Your task to perform on an android device: toggle improve location accuracy Image 0: 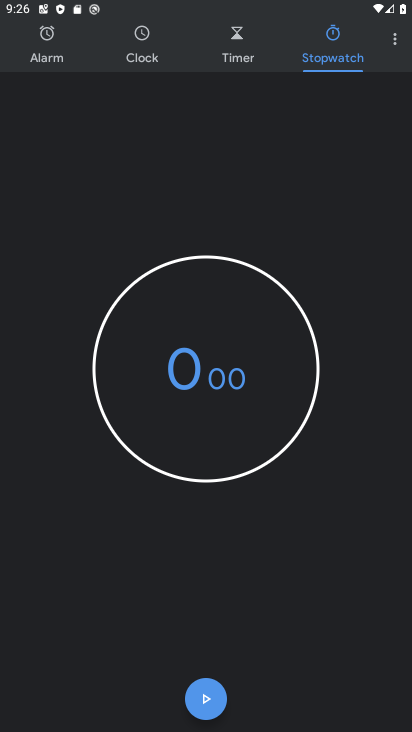
Step 0: press back button
Your task to perform on an android device: toggle improve location accuracy Image 1: 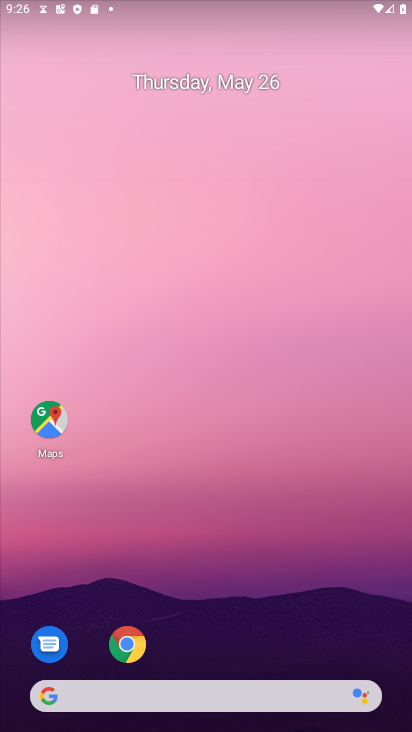
Step 1: drag from (161, 631) to (183, 197)
Your task to perform on an android device: toggle improve location accuracy Image 2: 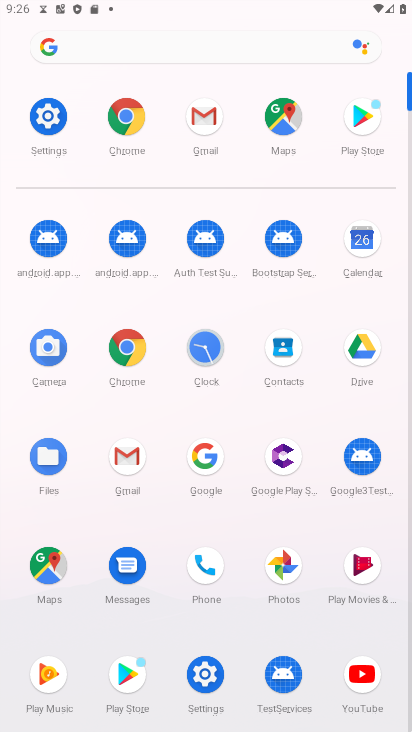
Step 2: click (44, 110)
Your task to perform on an android device: toggle improve location accuracy Image 3: 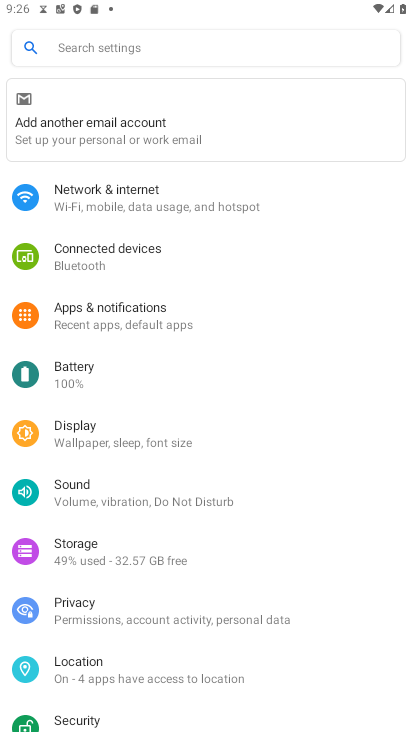
Step 3: click (128, 674)
Your task to perform on an android device: toggle improve location accuracy Image 4: 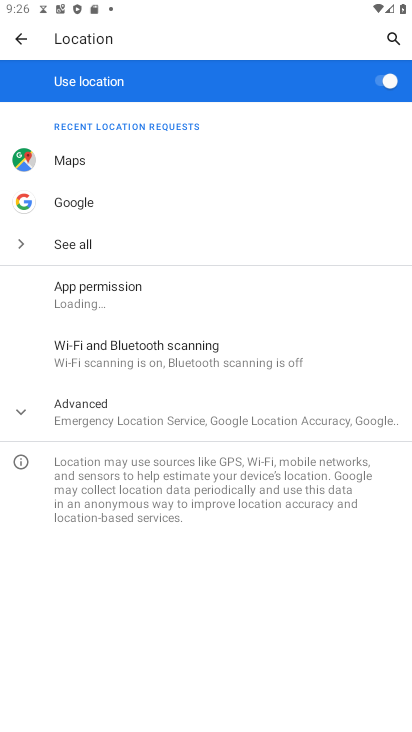
Step 4: click (165, 414)
Your task to perform on an android device: toggle improve location accuracy Image 5: 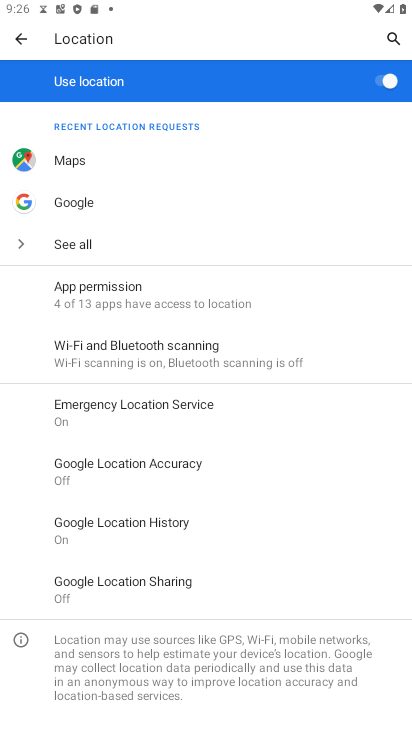
Step 5: click (146, 456)
Your task to perform on an android device: toggle improve location accuracy Image 6: 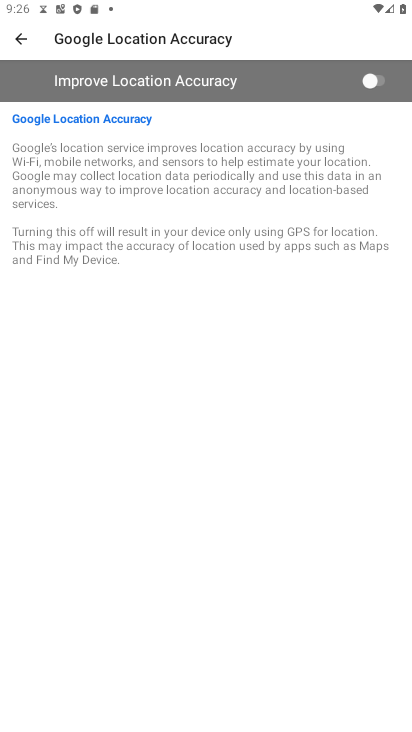
Step 6: click (370, 83)
Your task to perform on an android device: toggle improve location accuracy Image 7: 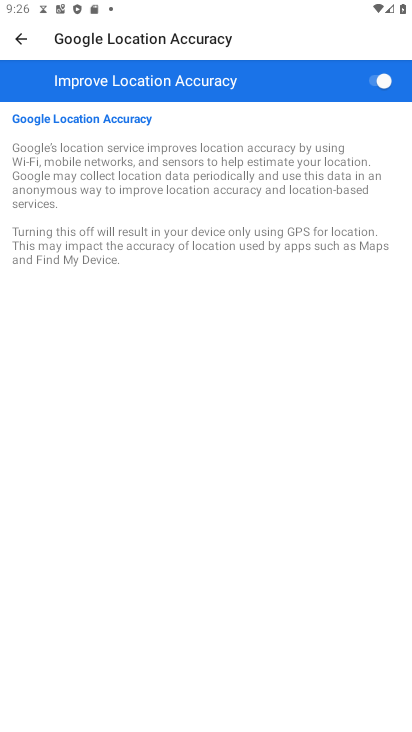
Step 7: task complete